Your task to perform on an android device: Do I have any events today? Image 0: 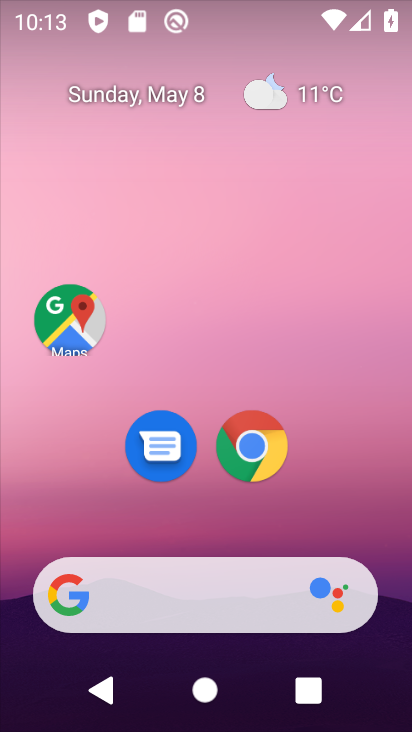
Step 0: drag from (346, 540) to (403, 9)
Your task to perform on an android device: Do I have any events today? Image 1: 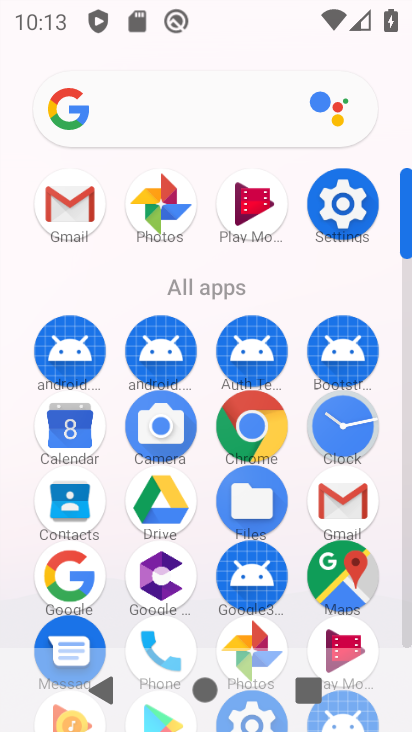
Step 1: click (76, 434)
Your task to perform on an android device: Do I have any events today? Image 2: 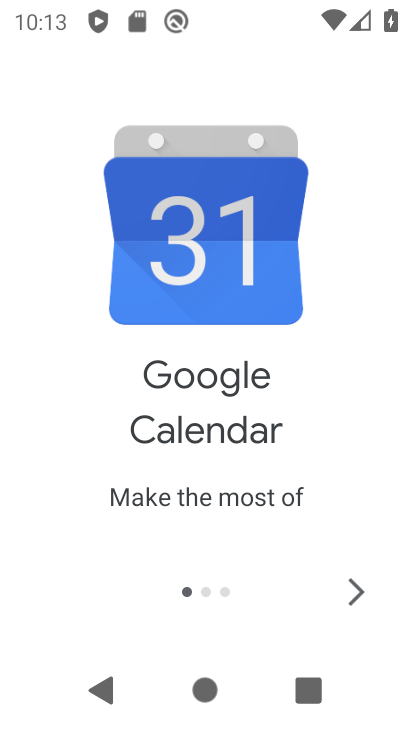
Step 2: click (353, 607)
Your task to perform on an android device: Do I have any events today? Image 3: 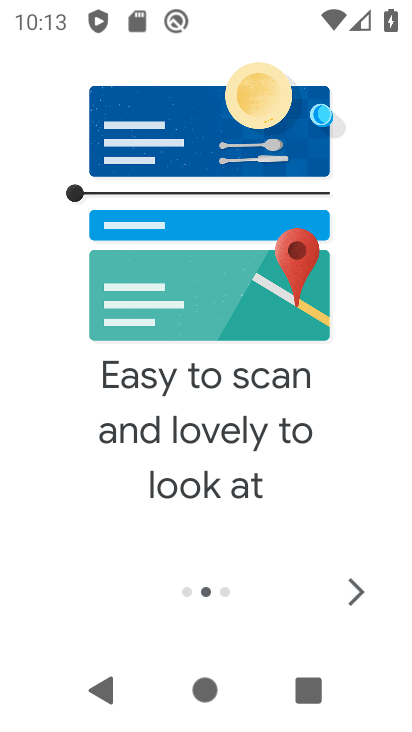
Step 3: click (353, 607)
Your task to perform on an android device: Do I have any events today? Image 4: 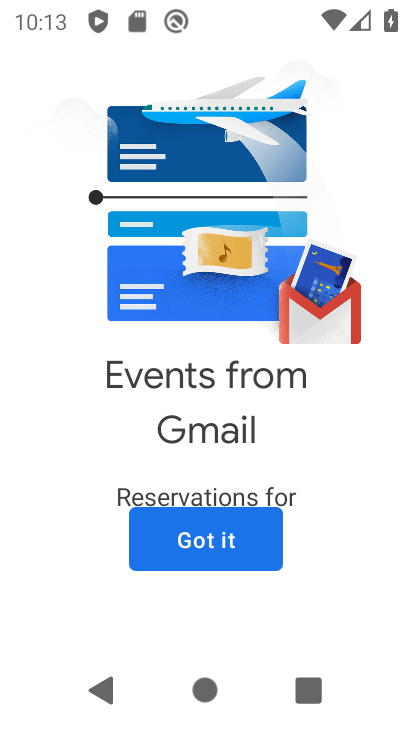
Step 4: click (230, 535)
Your task to perform on an android device: Do I have any events today? Image 5: 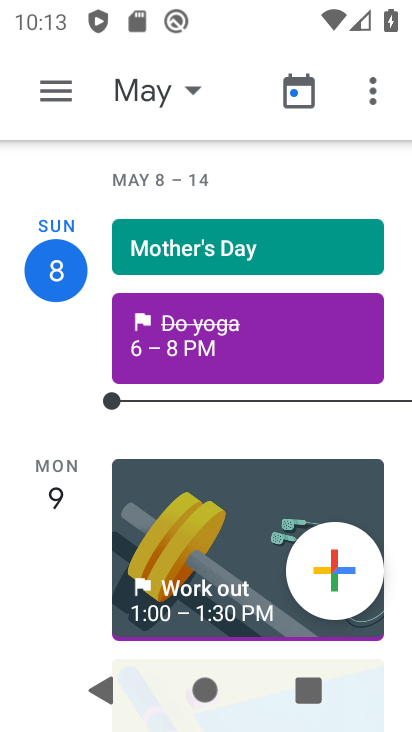
Step 5: click (189, 343)
Your task to perform on an android device: Do I have any events today? Image 6: 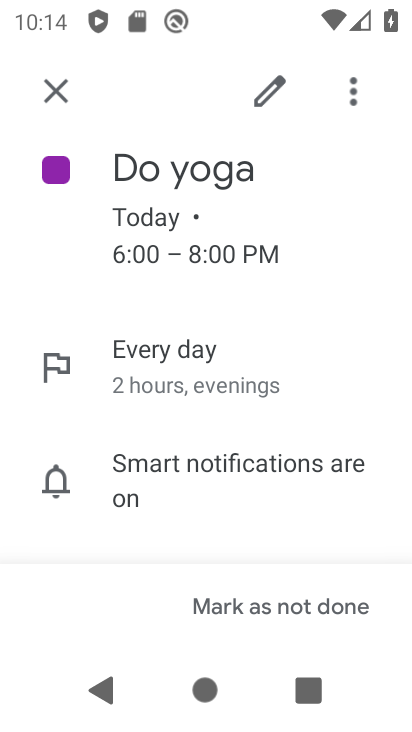
Step 6: task complete